Your task to perform on an android device: open chrome privacy settings Image 0: 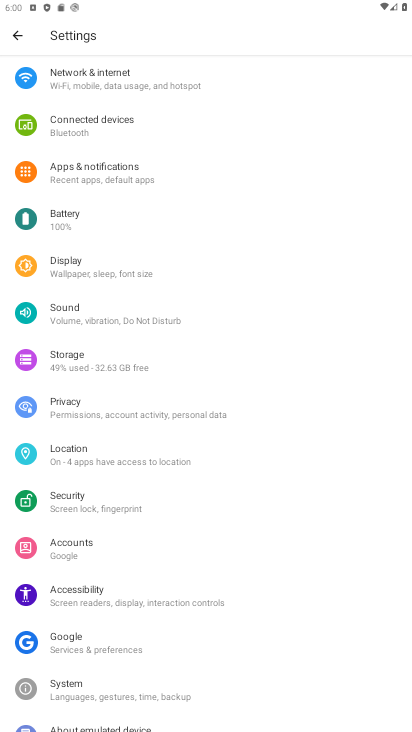
Step 0: press home button
Your task to perform on an android device: open chrome privacy settings Image 1: 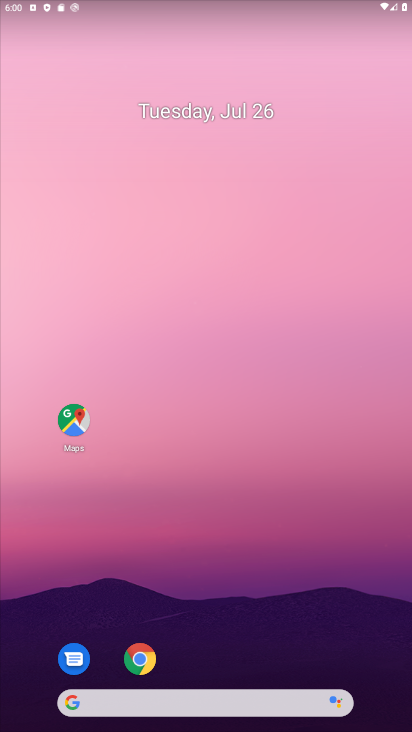
Step 1: click (146, 669)
Your task to perform on an android device: open chrome privacy settings Image 2: 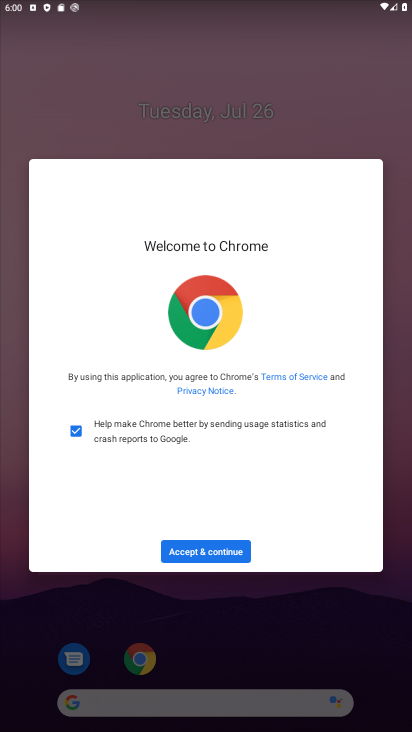
Step 2: click (217, 547)
Your task to perform on an android device: open chrome privacy settings Image 3: 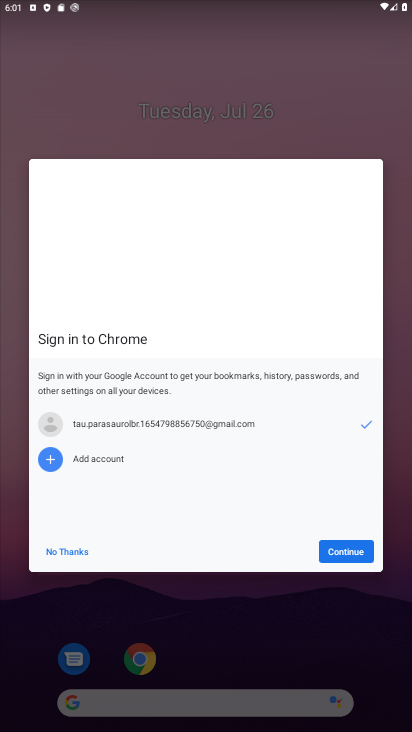
Step 3: click (349, 546)
Your task to perform on an android device: open chrome privacy settings Image 4: 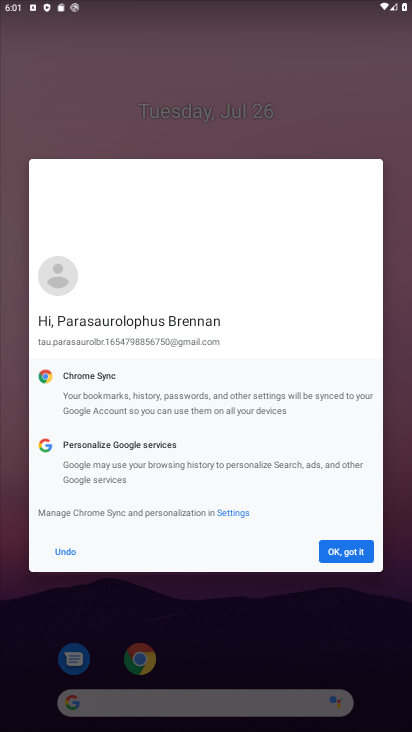
Step 4: click (349, 546)
Your task to perform on an android device: open chrome privacy settings Image 5: 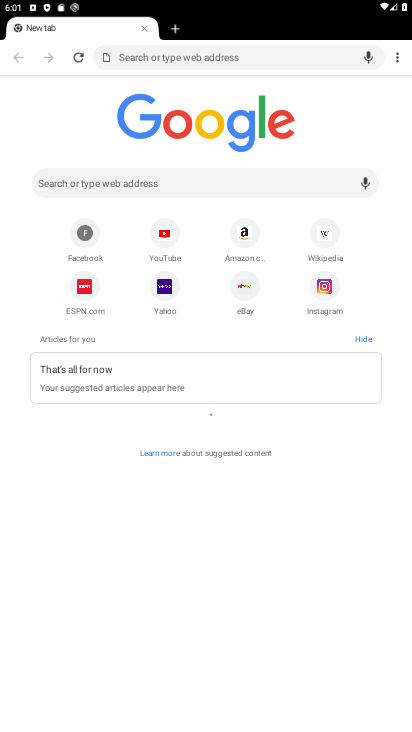
Step 5: click (398, 61)
Your task to perform on an android device: open chrome privacy settings Image 6: 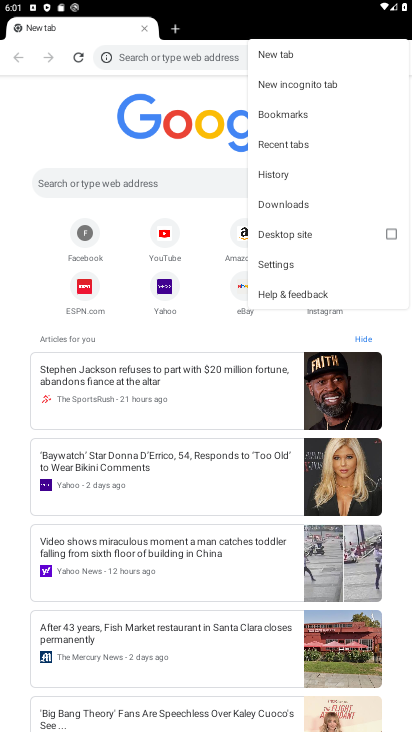
Step 6: click (289, 267)
Your task to perform on an android device: open chrome privacy settings Image 7: 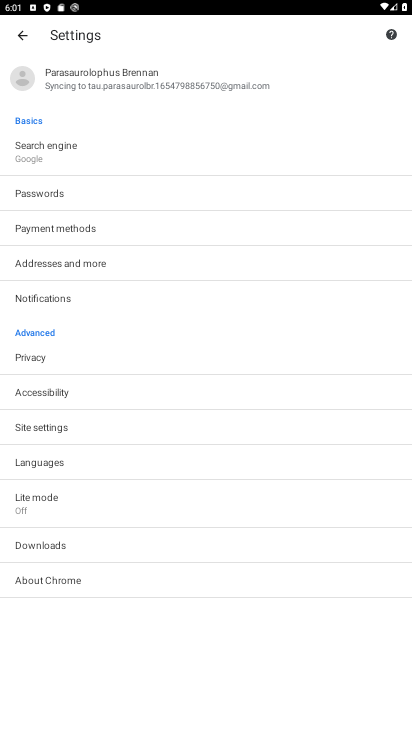
Step 7: click (44, 360)
Your task to perform on an android device: open chrome privacy settings Image 8: 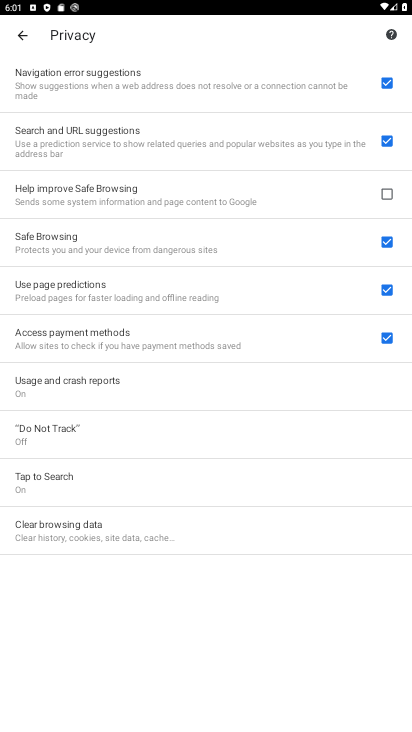
Step 8: task complete